Your task to perform on an android device: Go to battery settings Image 0: 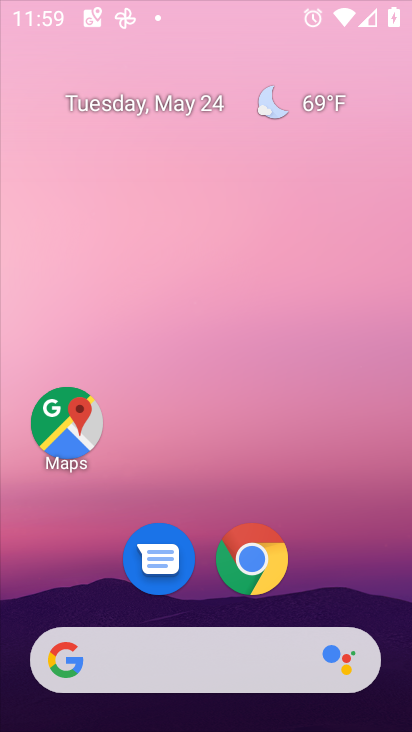
Step 0: click (333, 146)
Your task to perform on an android device: Go to battery settings Image 1: 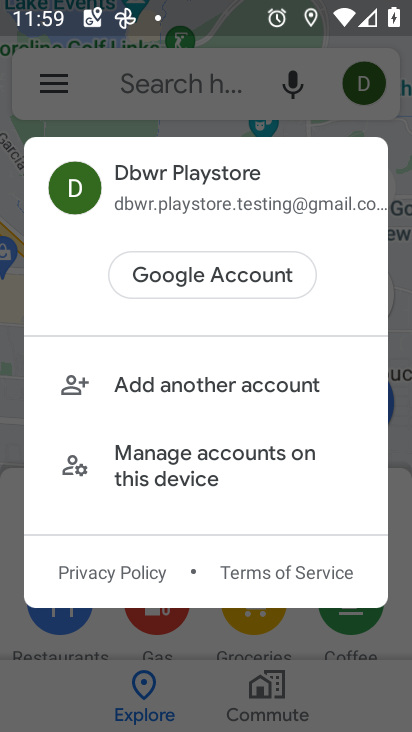
Step 1: press home button
Your task to perform on an android device: Go to battery settings Image 2: 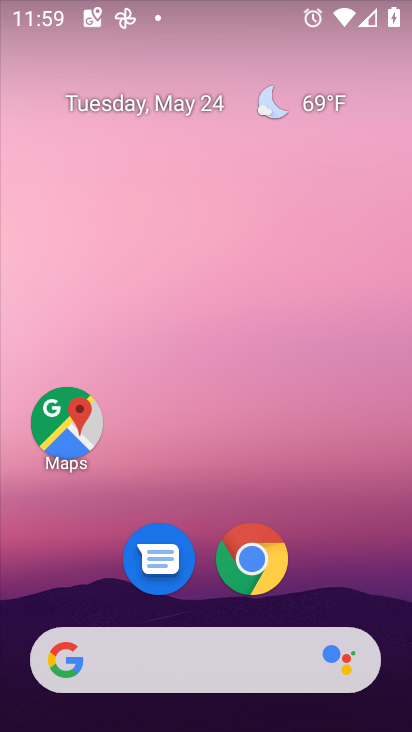
Step 2: drag from (396, 653) to (301, 127)
Your task to perform on an android device: Go to battery settings Image 3: 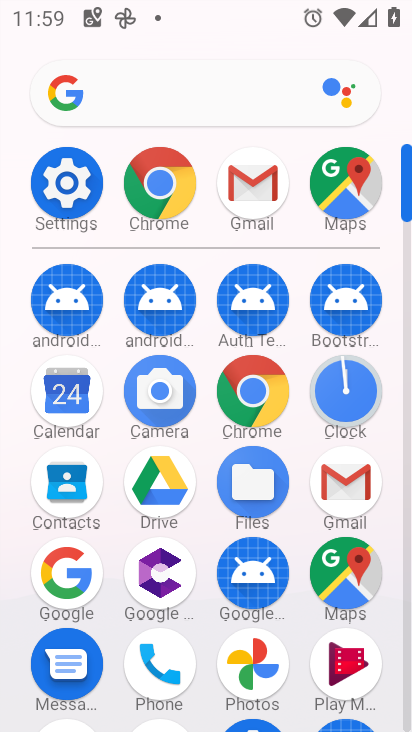
Step 3: click (35, 192)
Your task to perform on an android device: Go to battery settings Image 4: 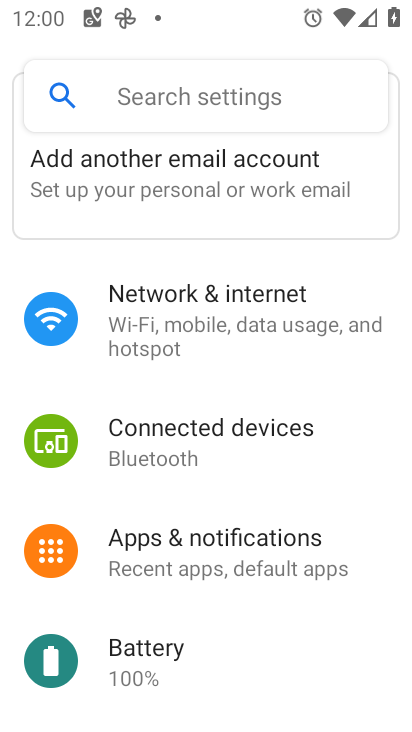
Step 4: click (206, 663)
Your task to perform on an android device: Go to battery settings Image 5: 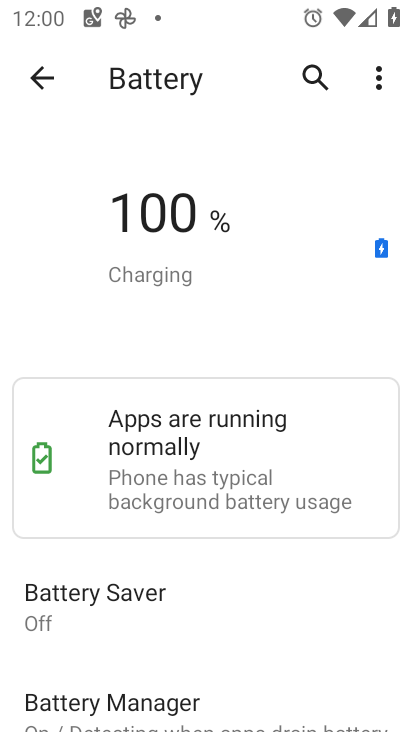
Step 5: task complete